Your task to perform on an android device: Open the calendar and show me this week's events? Image 0: 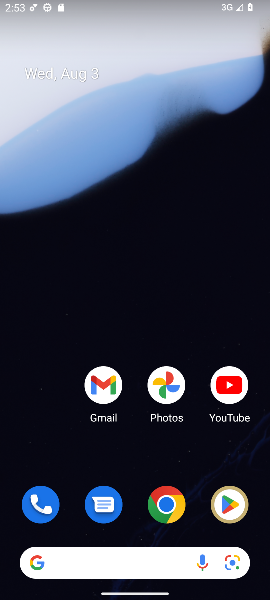
Step 0: drag from (44, 455) to (120, 85)
Your task to perform on an android device: Open the calendar and show me this week's events? Image 1: 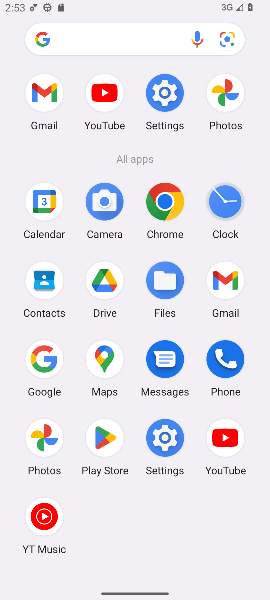
Step 1: click (44, 202)
Your task to perform on an android device: Open the calendar and show me this week's events? Image 2: 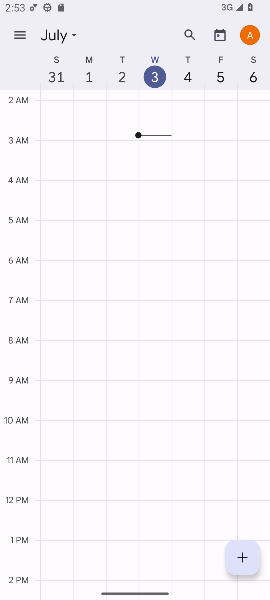
Step 2: click (60, 41)
Your task to perform on an android device: Open the calendar and show me this week's events? Image 3: 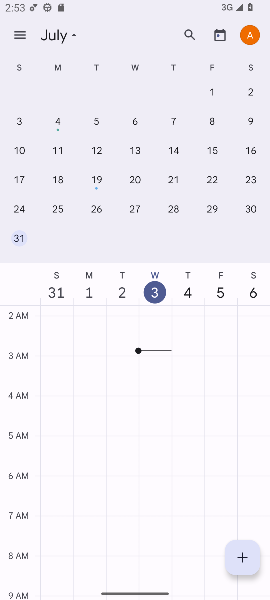
Step 3: drag from (225, 162) to (5, 156)
Your task to perform on an android device: Open the calendar and show me this week's events? Image 4: 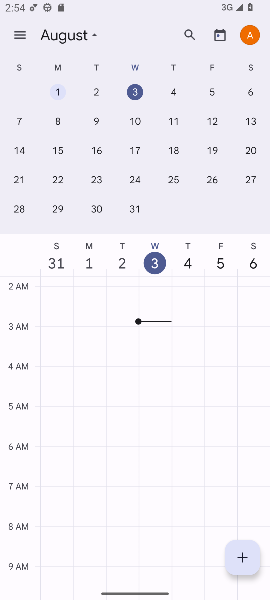
Step 4: click (136, 93)
Your task to perform on an android device: Open the calendar and show me this week's events? Image 5: 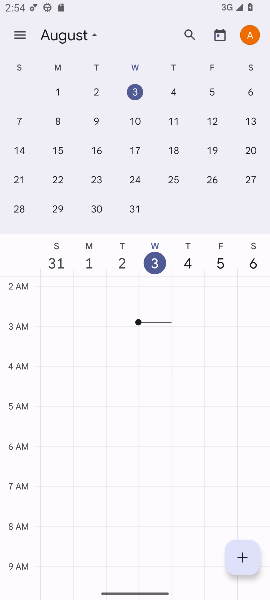
Step 5: task complete